Your task to perform on an android device: toggle notification dots Image 0: 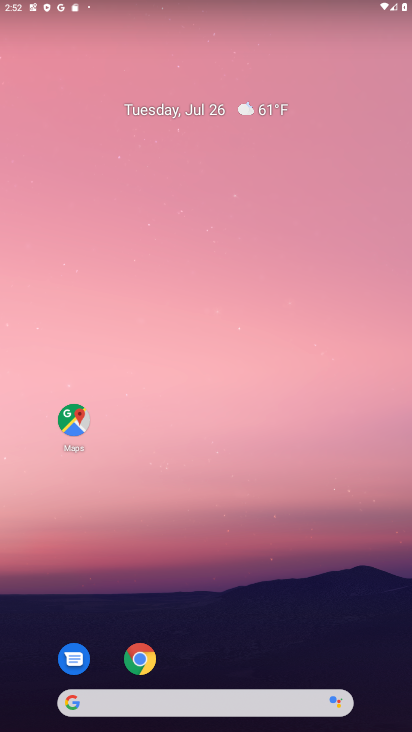
Step 0: drag from (388, 714) to (334, 204)
Your task to perform on an android device: toggle notification dots Image 1: 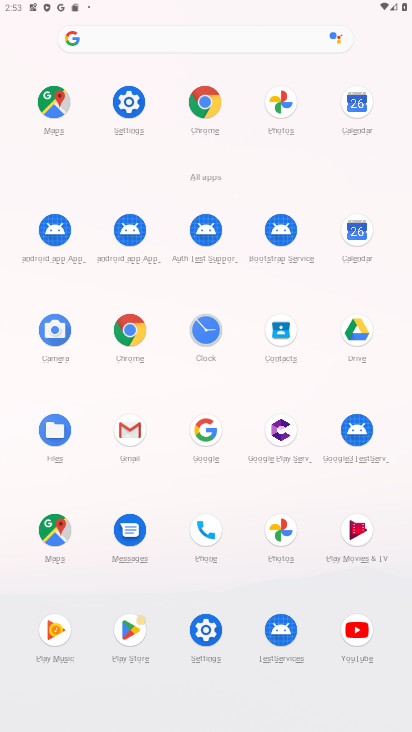
Step 1: click (201, 631)
Your task to perform on an android device: toggle notification dots Image 2: 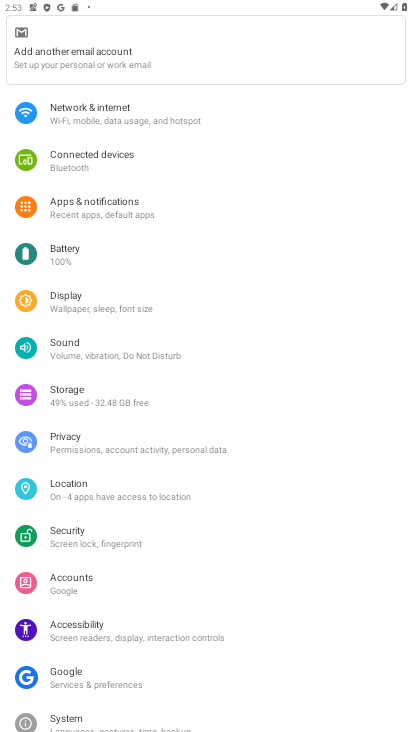
Step 2: click (118, 205)
Your task to perform on an android device: toggle notification dots Image 3: 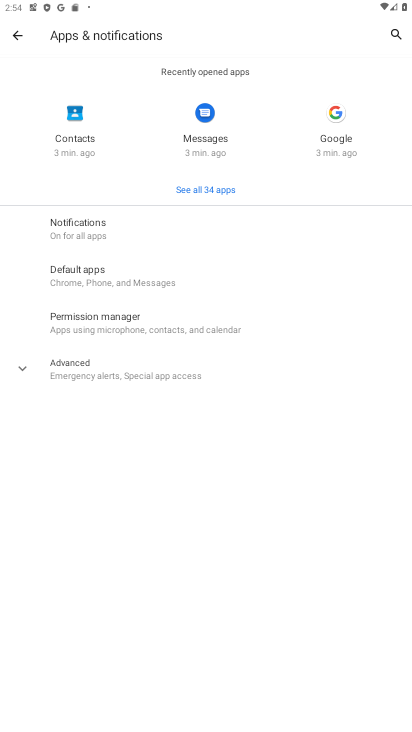
Step 3: click (62, 230)
Your task to perform on an android device: toggle notification dots Image 4: 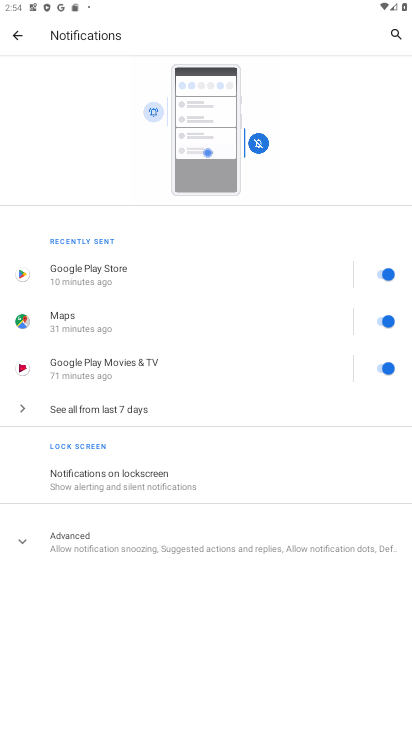
Step 4: click (14, 540)
Your task to perform on an android device: toggle notification dots Image 5: 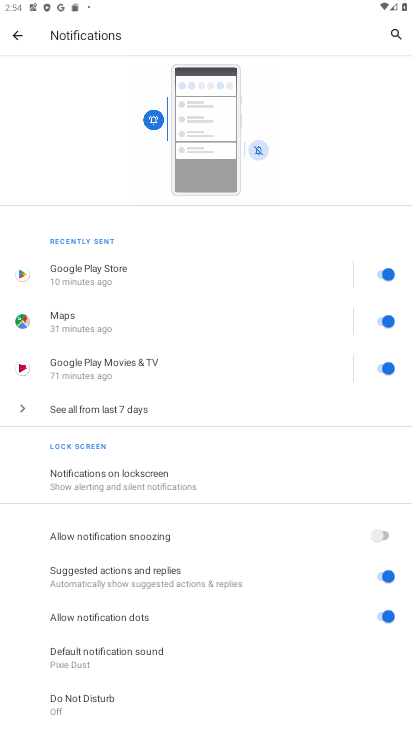
Step 5: click (378, 617)
Your task to perform on an android device: toggle notification dots Image 6: 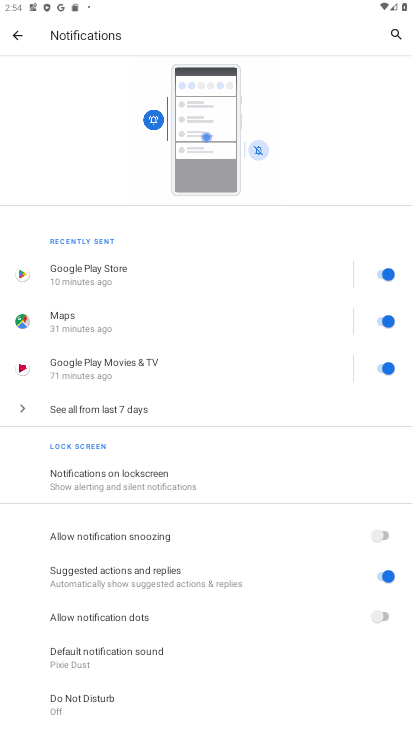
Step 6: task complete